Your task to perform on an android device: Go to calendar. Show me events next week Image 0: 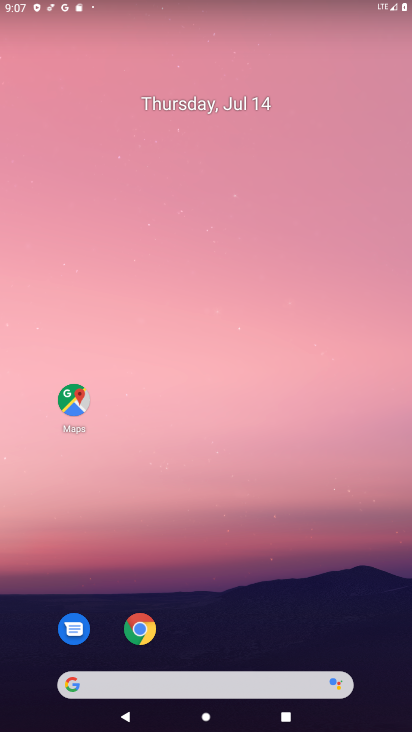
Step 0: drag from (79, 327) to (247, 130)
Your task to perform on an android device: Go to calendar. Show me events next week Image 1: 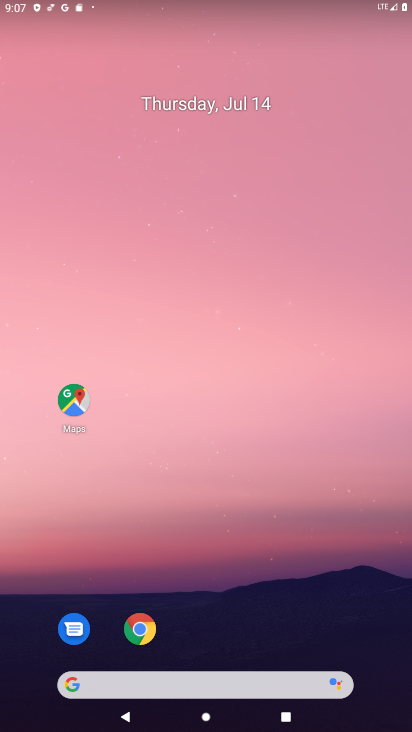
Step 1: drag from (271, 248) to (407, 211)
Your task to perform on an android device: Go to calendar. Show me events next week Image 2: 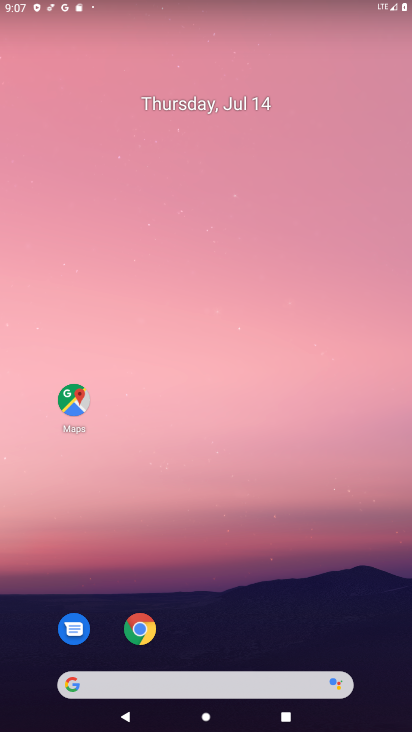
Step 2: drag from (58, 583) to (323, 65)
Your task to perform on an android device: Go to calendar. Show me events next week Image 3: 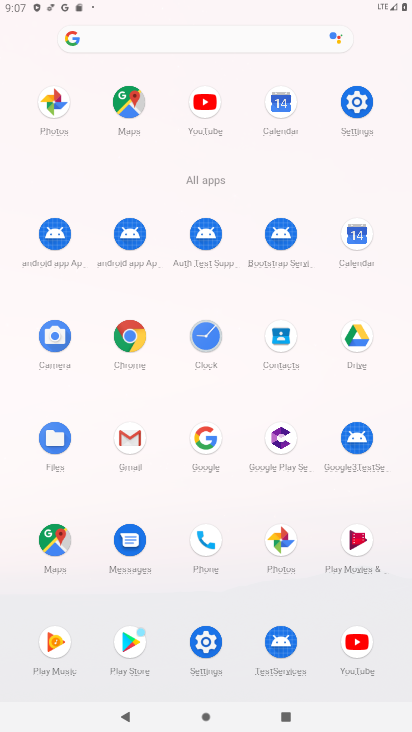
Step 3: click (351, 237)
Your task to perform on an android device: Go to calendar. Show me events next week Image 4: 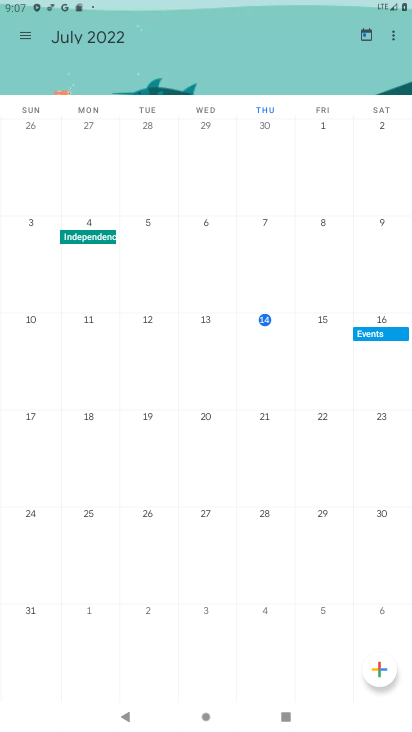
Step 4: task complete